Your task to perform on an android device: turn on location history Image 0: 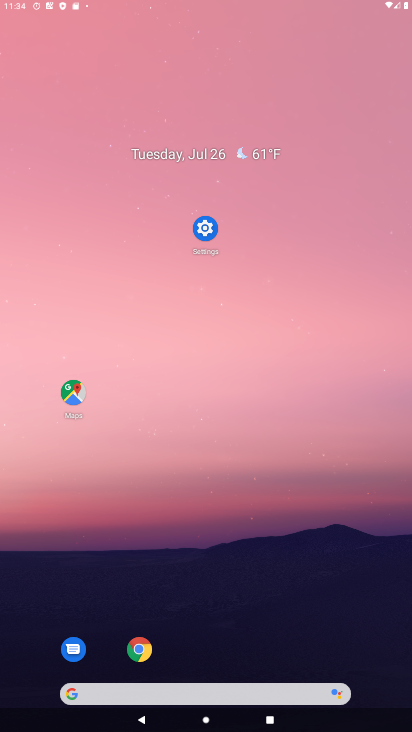
Step 0: drag from (233, 657) to (220, 22)
Your task to perform on an android device: turn on location history Image 1: 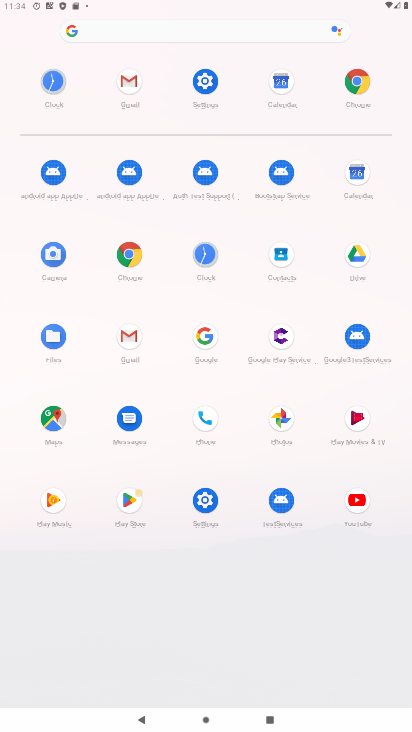
Step 1: click (201, 100)
Your task to perform on an android device: turn on location history Image 2: 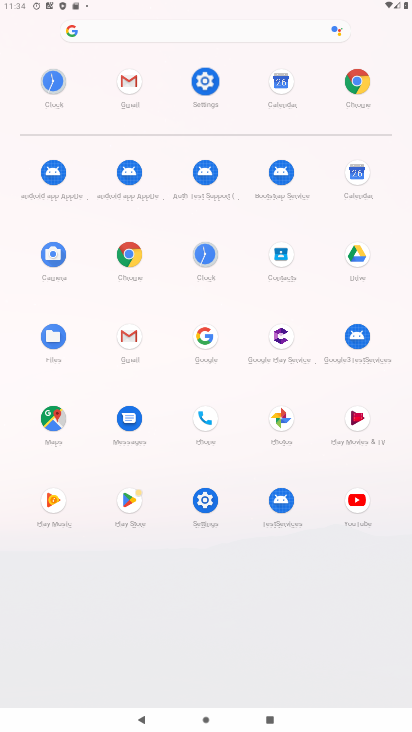
Step 2: click (209, 88)
Your task to perform on an android device: turn on location history Image 3: 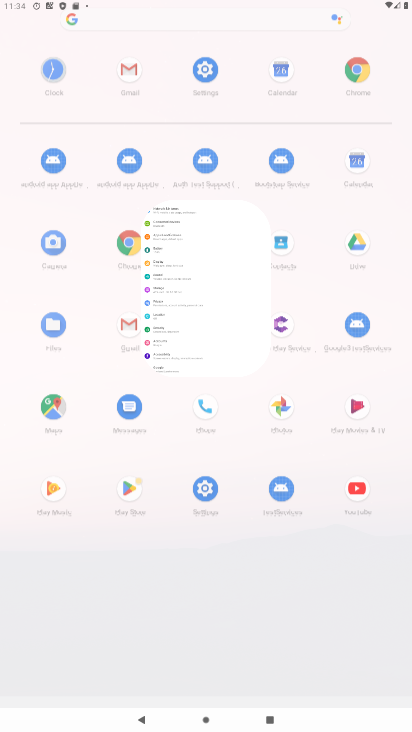
Step 3: click (208, 87)
Your task to perform on an android device: turn on location history Image 4: 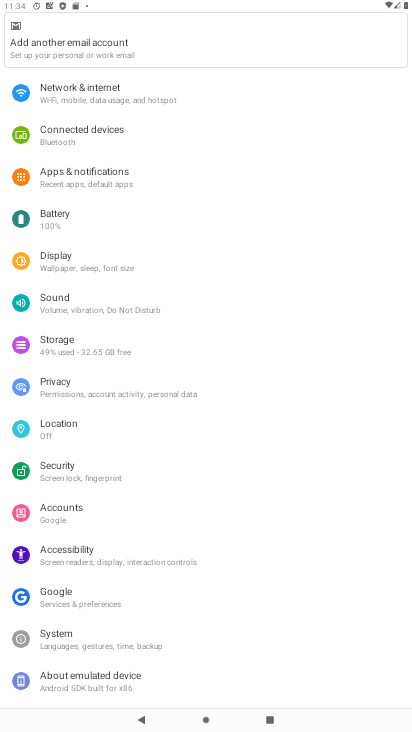
Step 4: click (55, 428)
Your task to perform on an android device: turn on location history Image 5: 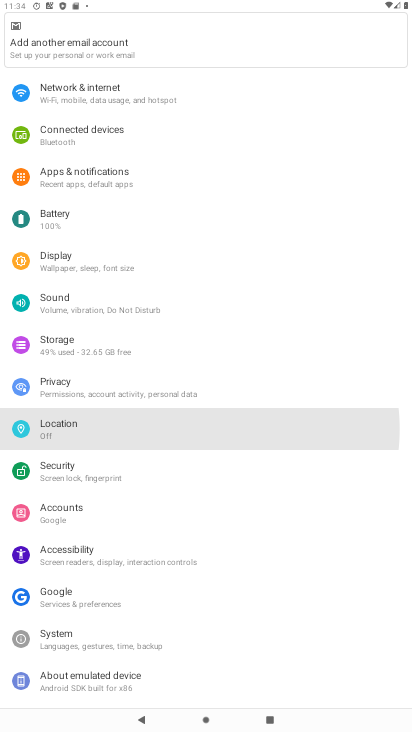
Step 5: click (53, 428)
Your task to perform on an android device: turn on location history Image 6: 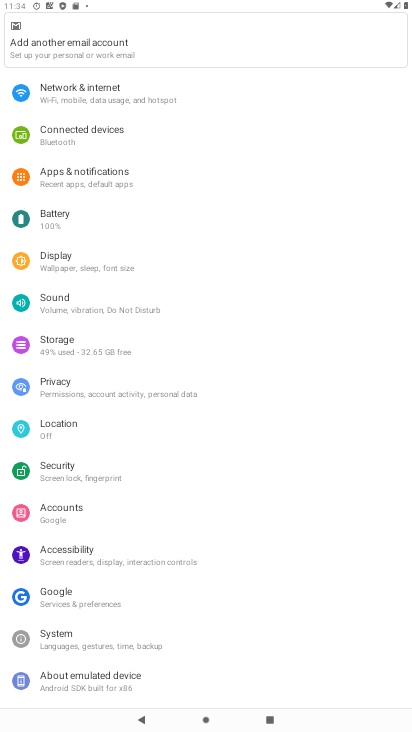
Step 6: click (50, 428)
Your task to perform on an android device: turn on location history Image 7: 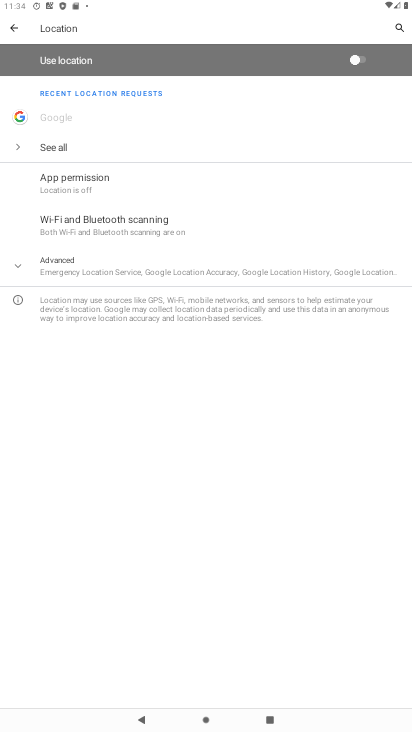
Step 7: click (351, 53)
Your task to perform on an android device: turn on location history Image 8: 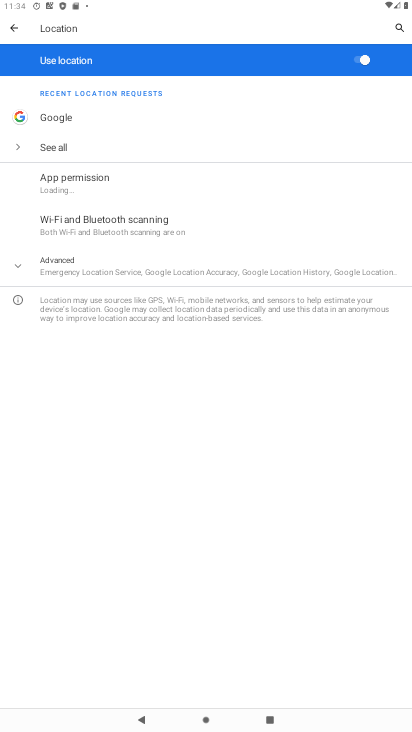
Step 8: click (359, 62)
Your task to perform on an android device: turn on location history Image 9: 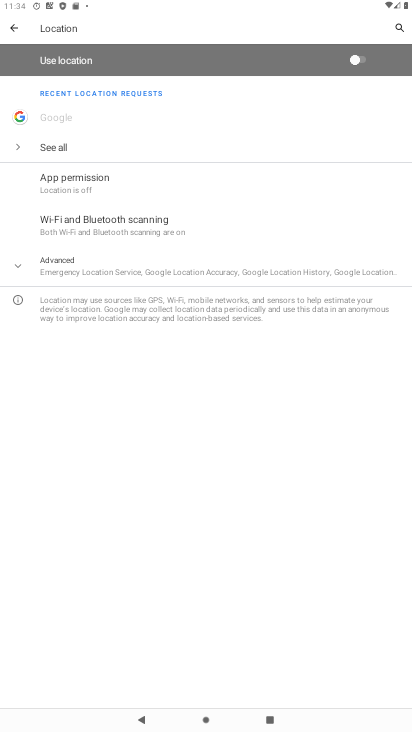
Step 9: click (68, 261)
Your task to perform on an android device: turn on location history Image 10: 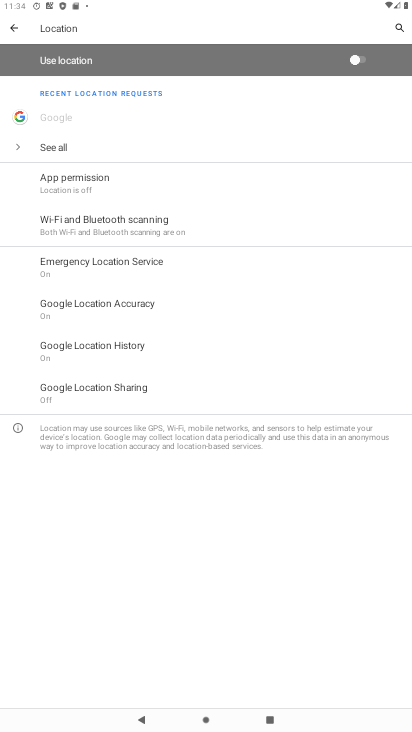
Step 10: click (112, 343)
Your task to perform on an android device: turn on location history Image 11: 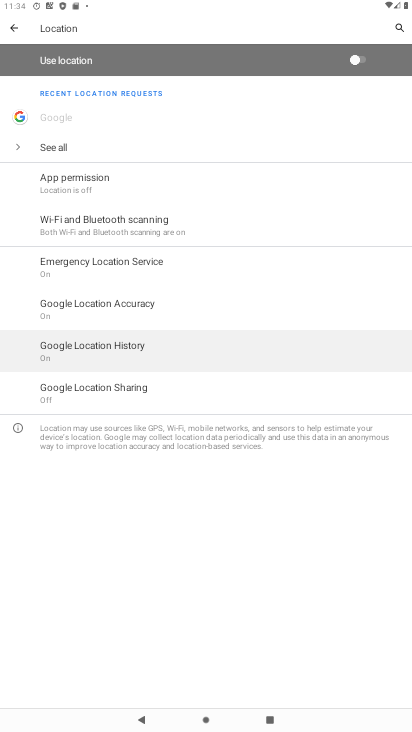
Step 11: click (111, 331)
Your task to perform on an android device: turn on location history Image 12: 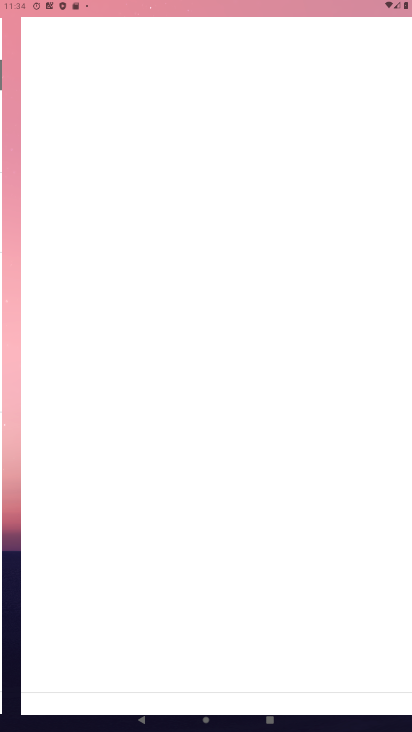
Step 12: click (111, 330)
Your task to perform on an android device: turn on location history Image 13: 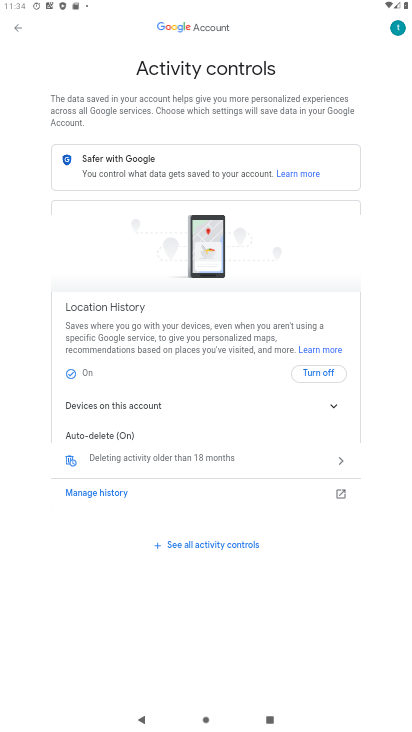
Step 13: task complete